Your task to perform on an android device: Open internet settings Image 0: 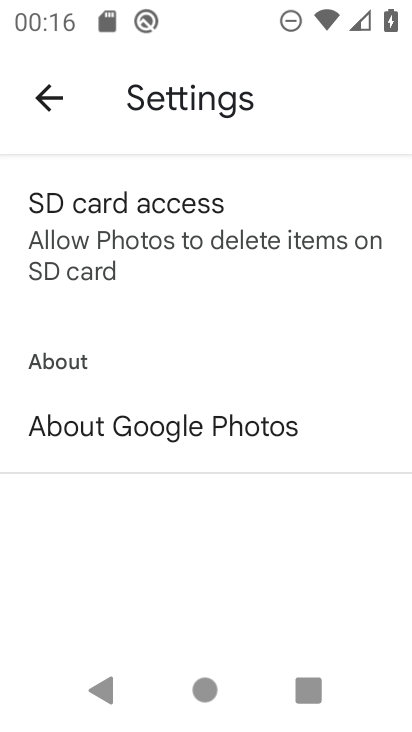
Step 0: press home button
Your task to perform on an android device: Open internet settings Image 1: 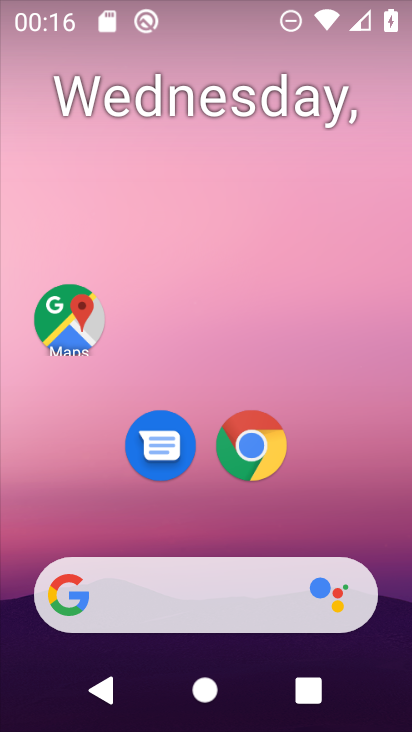
Step 1: drag from (257, 528) to (401, 53)
Your task to perform on an android device: Open internet settings Image 2: 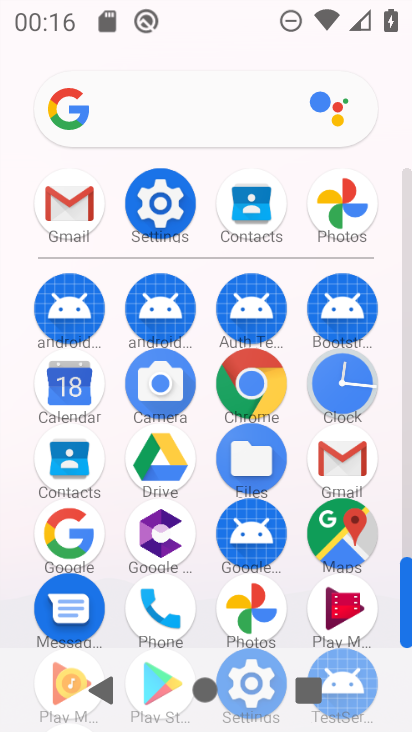
Step 2: click (173, 198)
Your task to perform on an android device: Open internet settings Image 3: 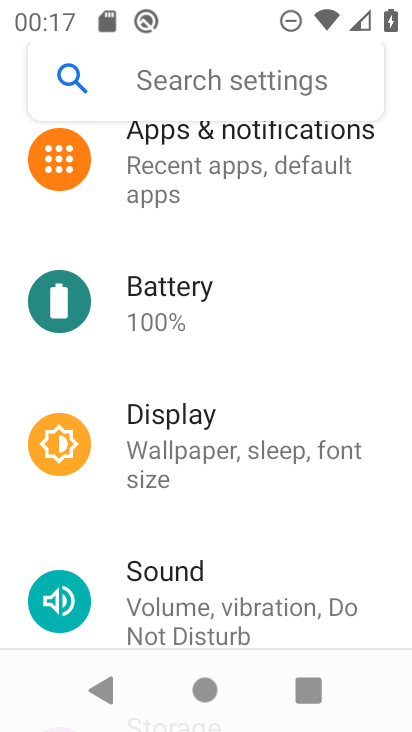
Step 3: drag from (233, 200) to (222, 429)
Your task to perform on an android device: Open internet settings Image 4: 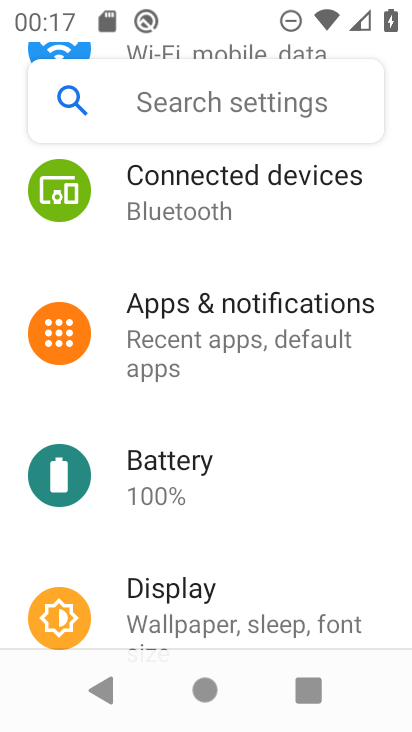
Step 4: drag from (228, 366) to (251, 410)
Your task to perform on an android device: Open internet settings Image 5: 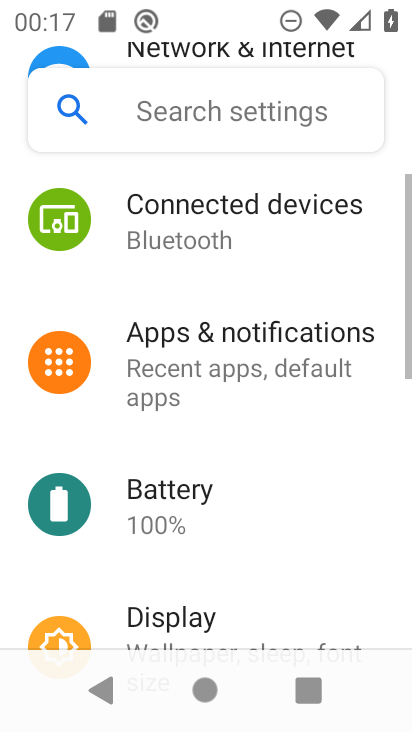
Step 5: drag from (249, 242) to (253, 447)
Your task to perform on an android device: Open internet settings Image 6: 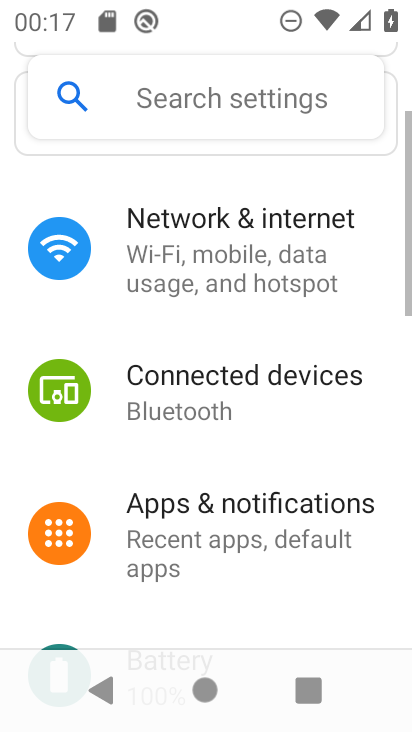
Step 6: drag from (272, 288) to (302, 444)
Your task to perform on an android device: Open internet settings Image 7: 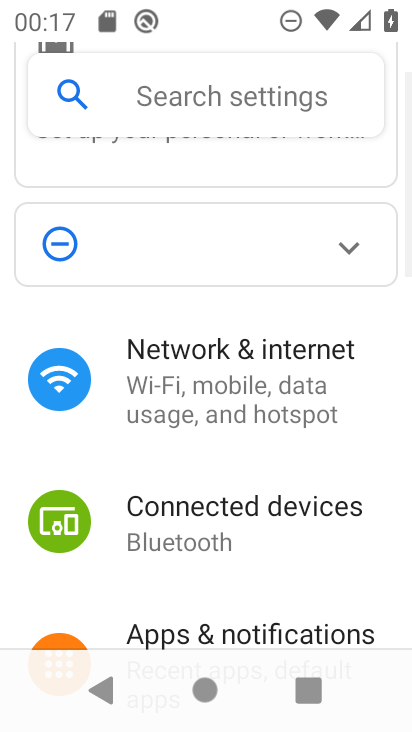
Step 7: click (271, 299)
Your task to perform on an android device: Open internet settings Image 8: 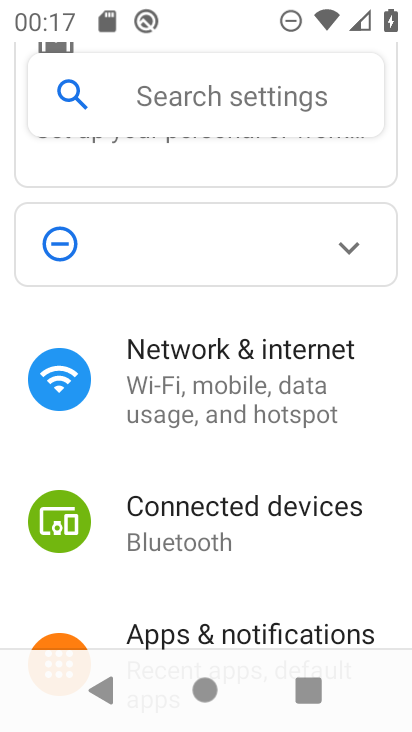
Step 8: click (283, 350)
Your task to perform on an android device: Open internet settings Image 9: 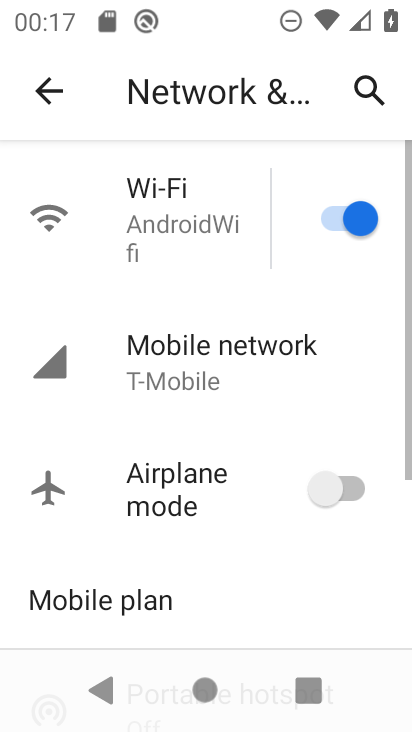
Step 9: click (198, 366)
Your task to perform on an android device: Open internet settings Image 10: 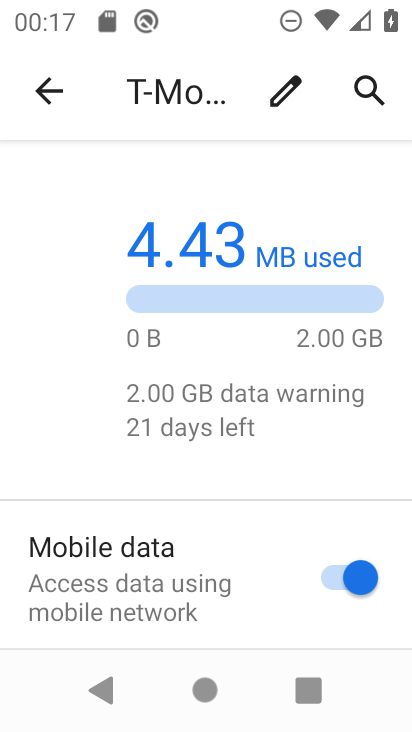
Step 10: task complete